Your task to perform on an android device: open sync settings in chrome Image 0: 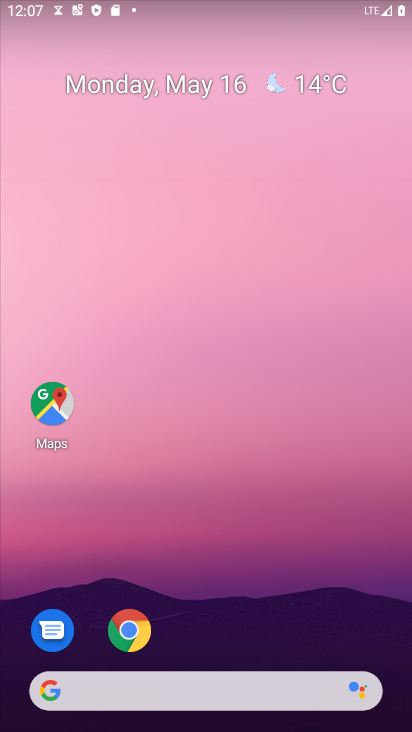
Step 0: click (125, 636)
Your task to perform on an android device: open sync settings in chrome Image 1: 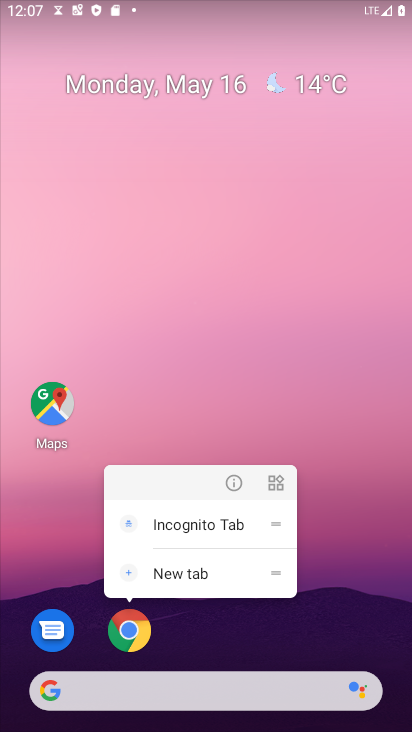
Step 1: click (118, 630)
Your task to perform on an android device: open sync settings in chrome Image 2: 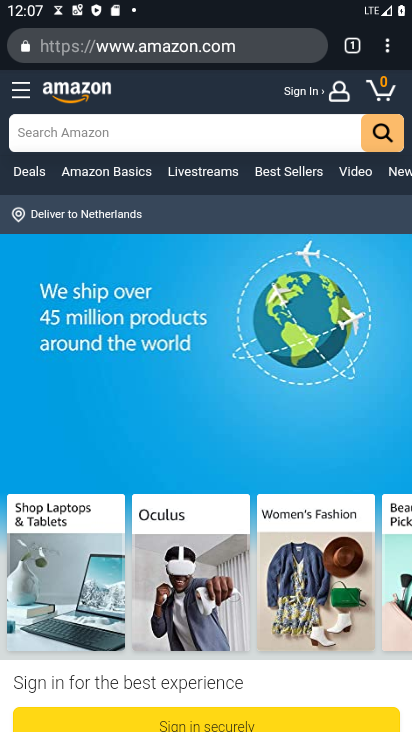
Step 2: click (388, 46)
Your task to perform on an android device: open sync settings in chrome Image 3: 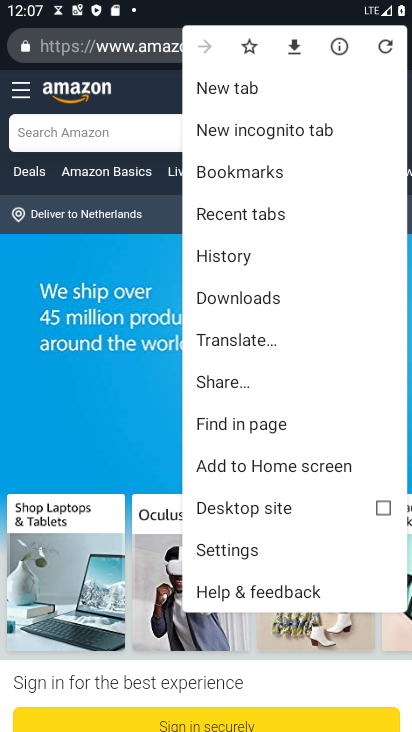
Step 3: click (256, 541)
Your task to perform on an android device: open sync settings in chrome Image 4: 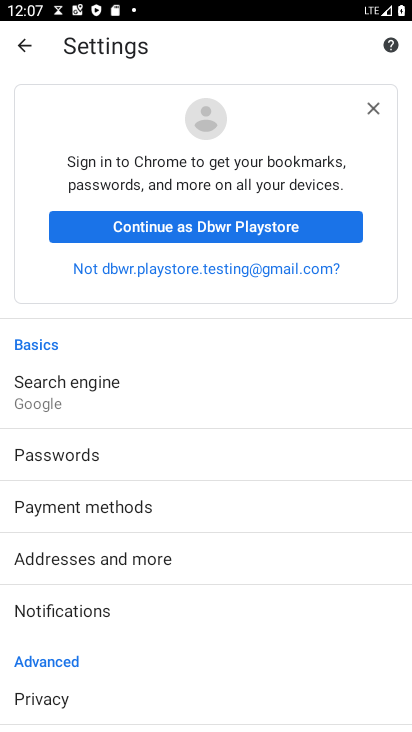
Step 4: drag from (34, 592) to (197, 160)
Your task to perform on an android device: open sync settings in chrome Image 5: 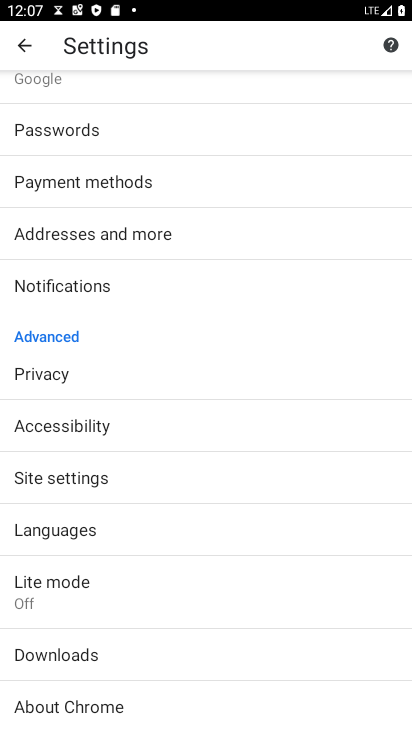
Step 5: drag from (10, 666) to (206, 179)
Your task to perform on an android device: open sync settings in chrome Image 6: 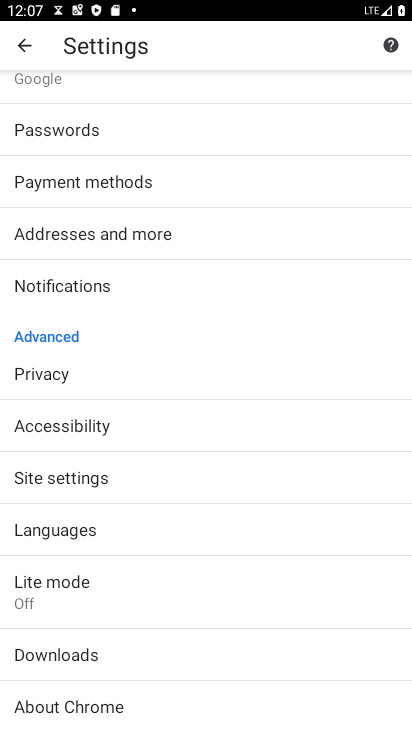
Step 6: click (50, 479)
Your task to perform on an android device: open sync settings in chrome Image 7: 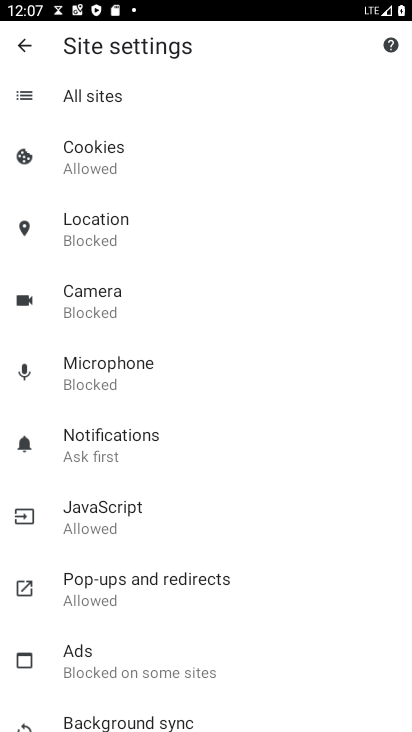
Step 7: click (98, 709)
Your task to perform on an android device: open sync settings in chrome Image 8: 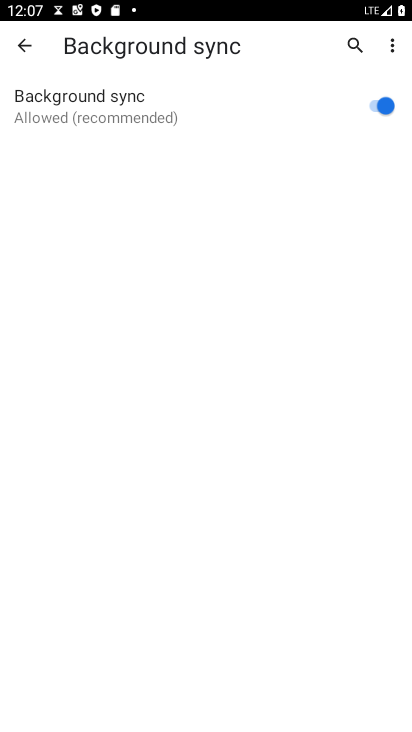
Step 8: task complete